Your task to perform on an android device: move a message to another label in the gmail app Image 0: 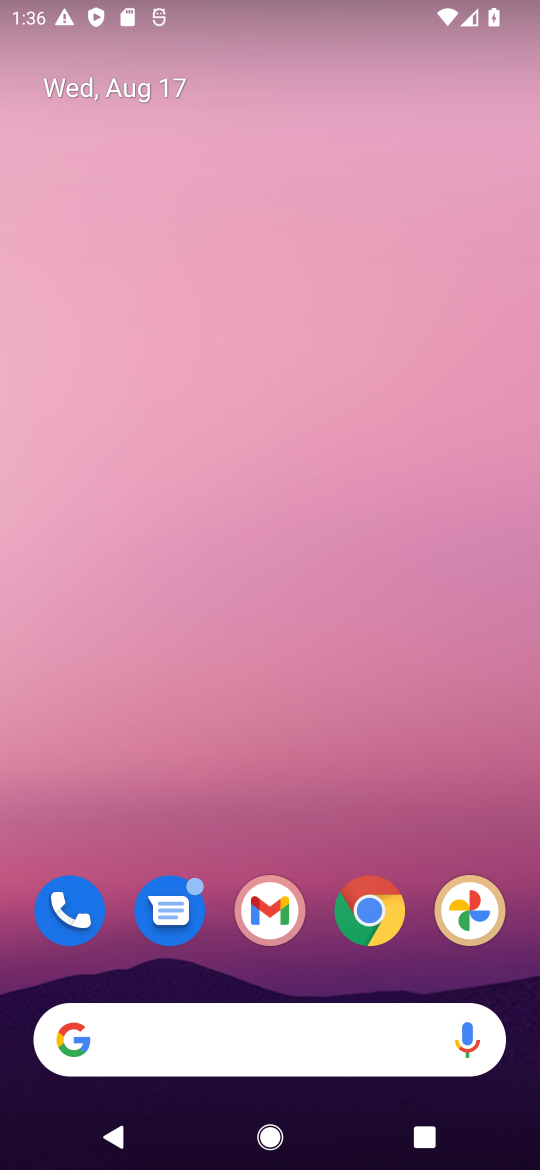
Step 0: click (267, 927)
Your task to perform on an android device: move a message to another label in the gmail app Image 1: 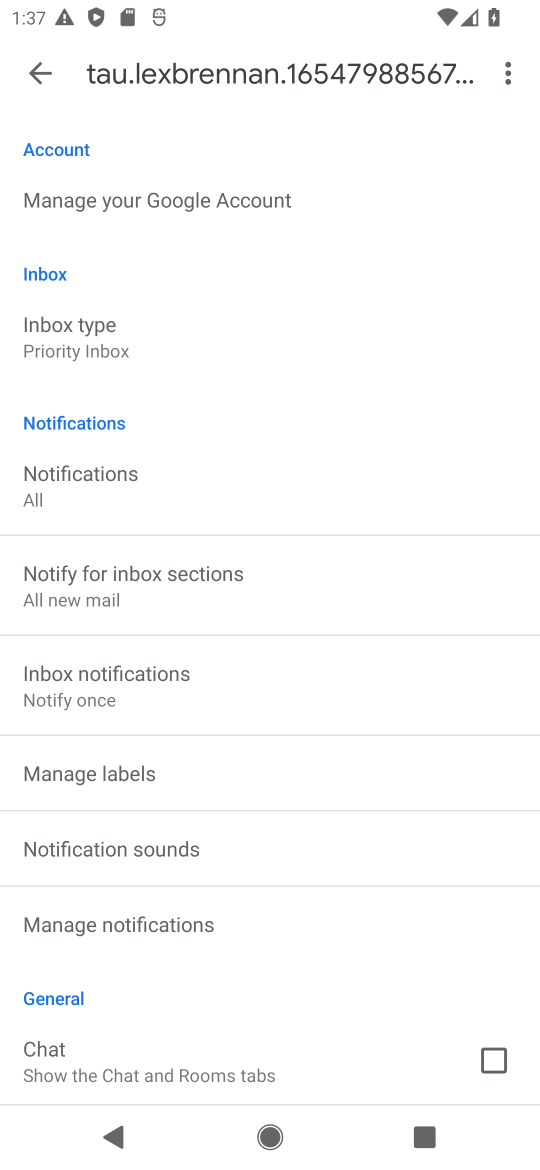
Step 1: task complete